Your task to perform on an android device: Open settings Image 0: 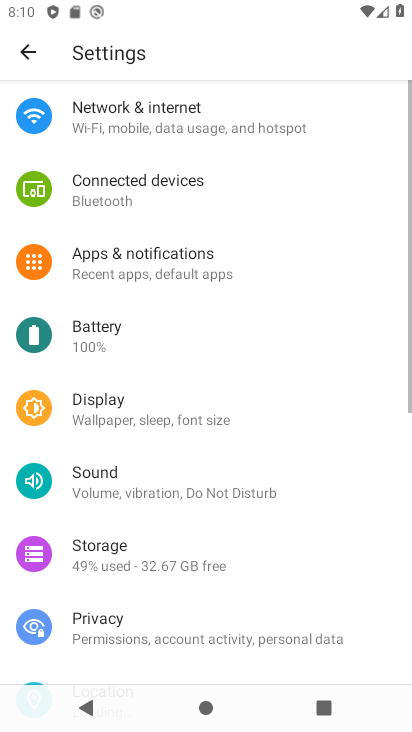
Step 0: task complete